Your task to perform on an android device: change keyboard looks Image 0: 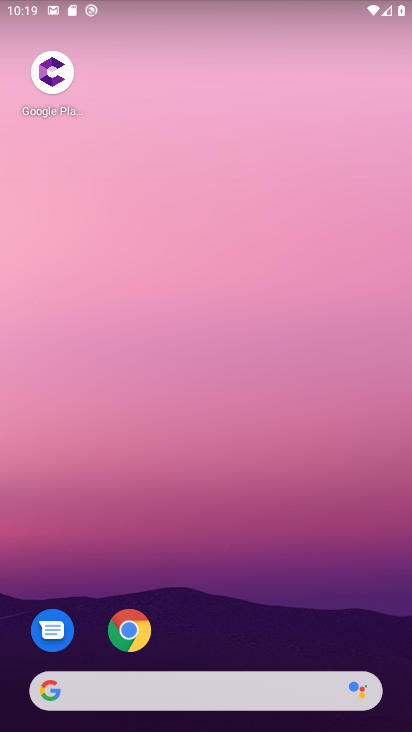
Step 0: drag from (236, 655) to (282, 29)
Your task to perform on an android device: change keyboard looks Image 1: 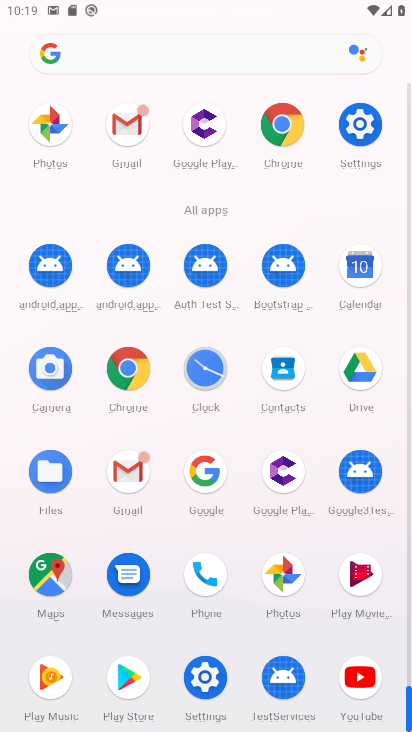
Step 1: click (363, 126)
Your task to perform on an android device: change keyboard looks Image 2: 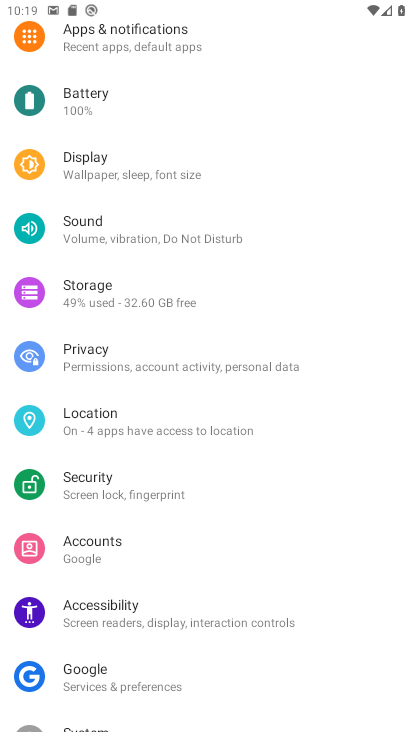
Step 2: drag from (139, 521) to (215, 7)
Your task to perform on an android device: change keyboard looks Image 3: 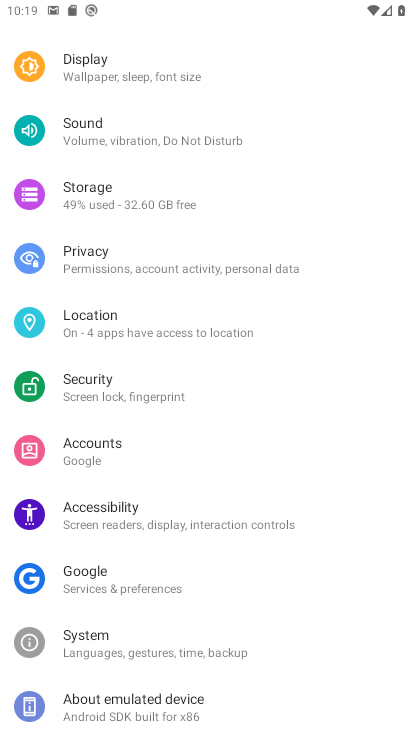
Step 3: drag from (176, 306) to (178, 693)
Your task to perform on an android device: change keyboard looks Image 4: 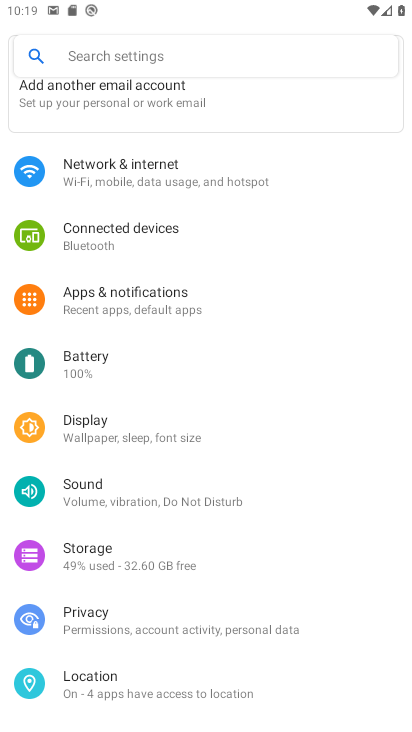
Step 4: drag from (168, 586) to (192, 201)
Your task to perform on an android device: change keyboard looks Image 5: 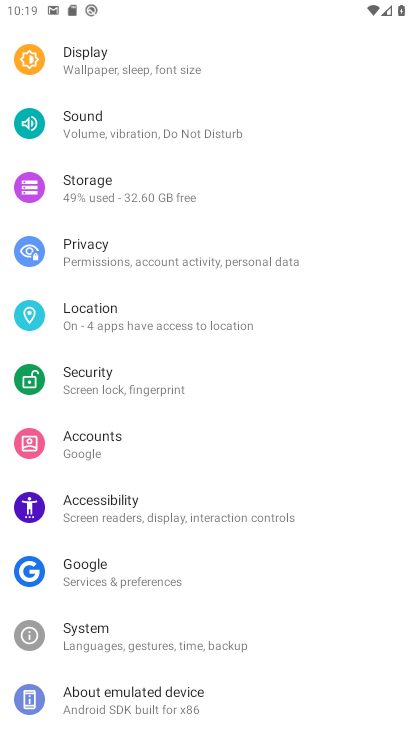
Step 5: drag from (180, 619) to (162, 259)
Your task to perform on an android device: change keyboard looks Image 6: 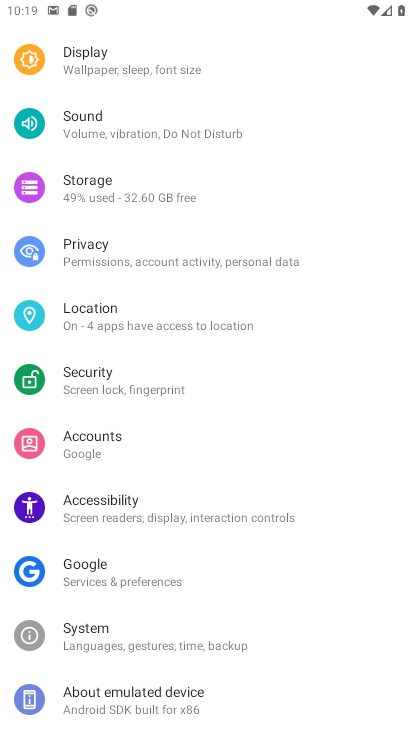
Step 6: click (129, 631)
Your task to perform on an android device: change keyboard looks Image 7: 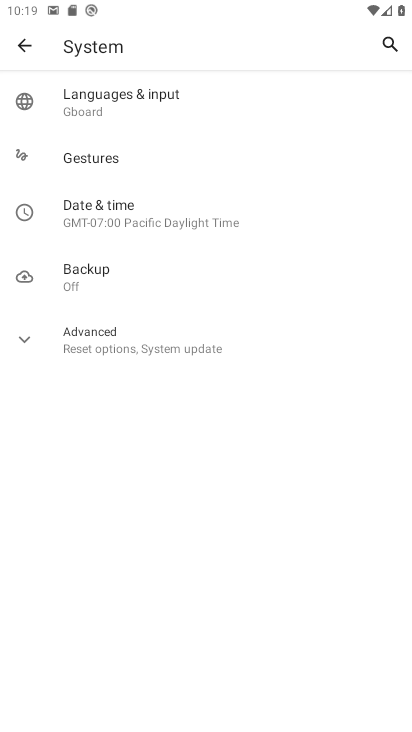
Step 7: click (170, 100)
Your task to perform on an android device: change keyboard looks Image 8: 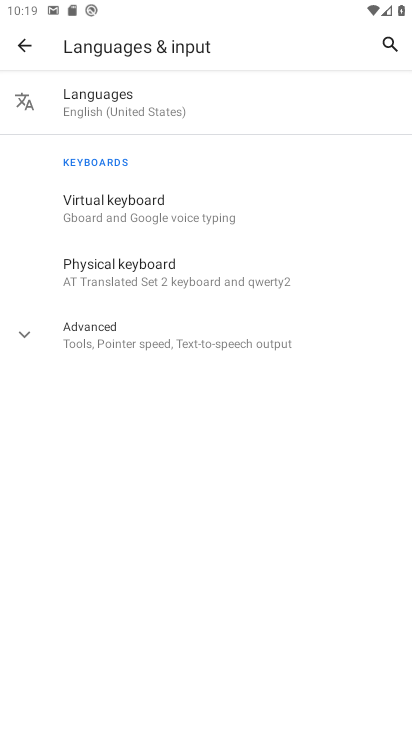
Step 8: click (140, 273)
Your task to perform on an android device: change keyboard looks Image 9: 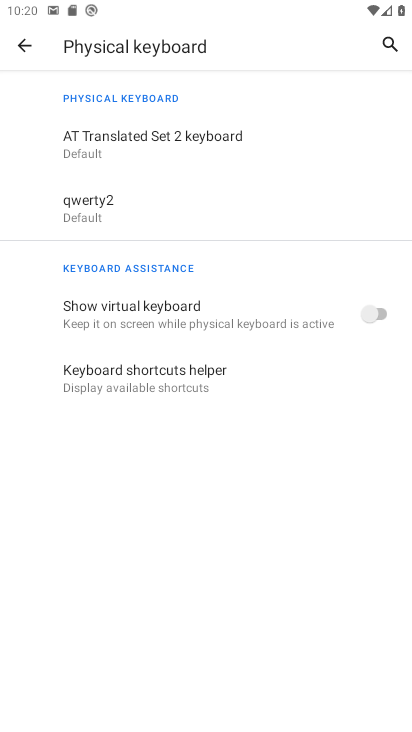
Step 9: click (27, 46)
Your task to perform on an android device: change keyboard looks Image 10: 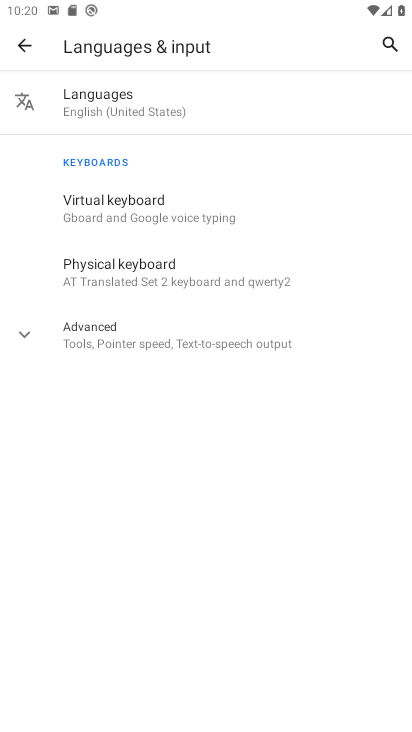
Step 10: click (167, 199)
Your task to perform on an android device: change keyboard looks Image 11: 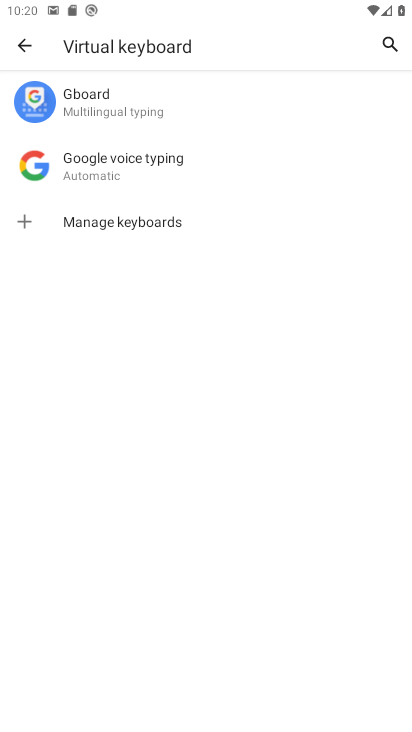
Step 11: click (155, 91)
Your task to perform on an android device: change keyboard looks Image 12: 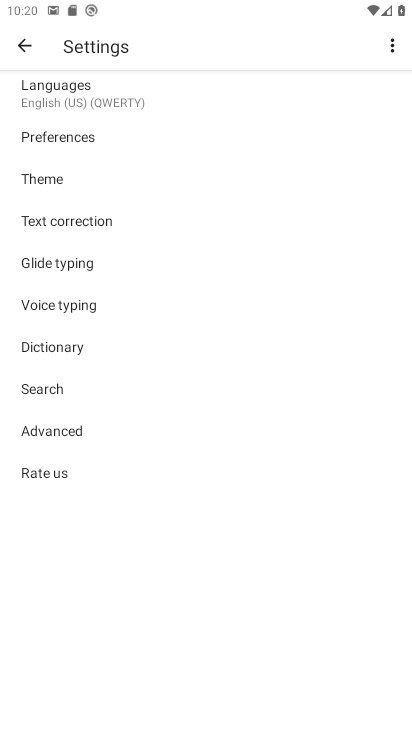
Step 12: click (53, 174)
Your task to perform on an android device: change keyboard looks Image 13: 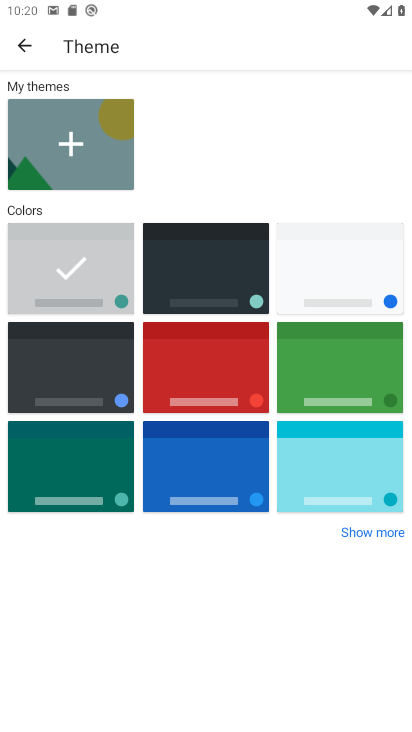
Step 13: click (122, 392)
Your task to perform on an android device: change keyboard looks Image 14: 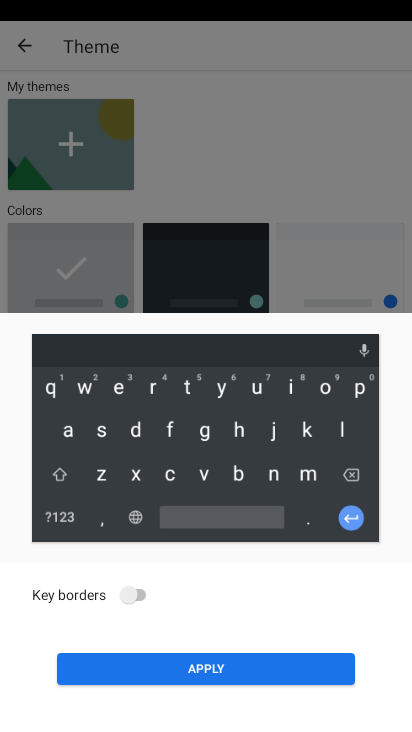
Step 14: task complete